Your task to perform on an android device: Go to notification settings Image 0: 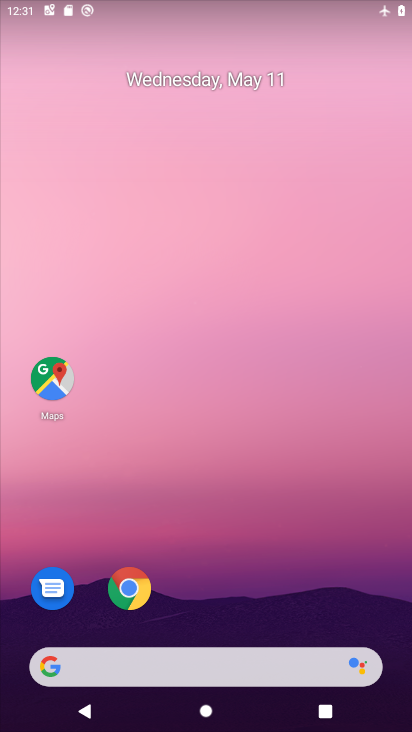
Step 0: drag from (212, 651) to (164, 264)
Your task to perform on an android device: Go to notification settings Image 1: 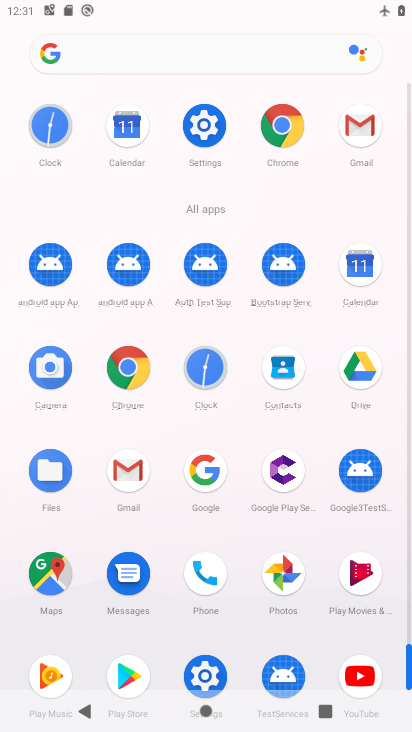
Step 1: click (186, 129)
Your task to perform on an android device: Go to notification settings Image 2: 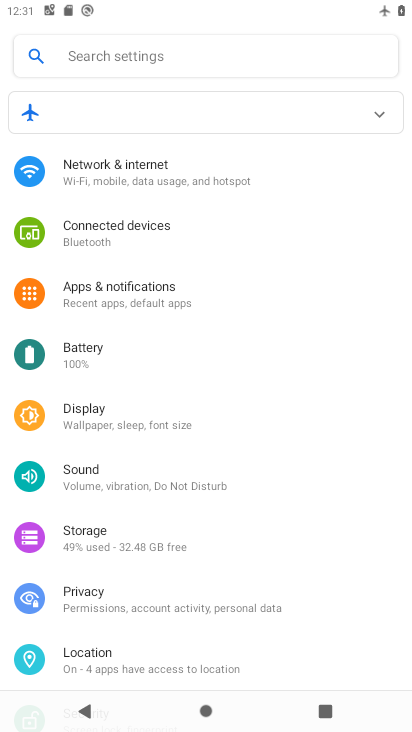
Step 2: click (110, 284)
Your task to perform on an android device: Go to notification settings Image 3: 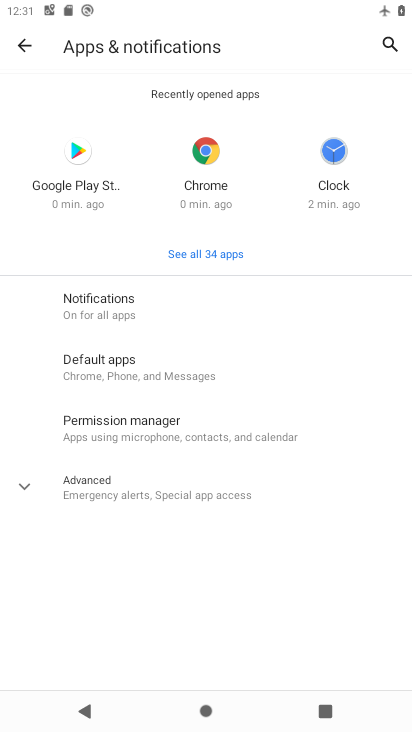
Step 3: click (86, 490)
Your task to perform on an android device: Go to notification settings Image 4: 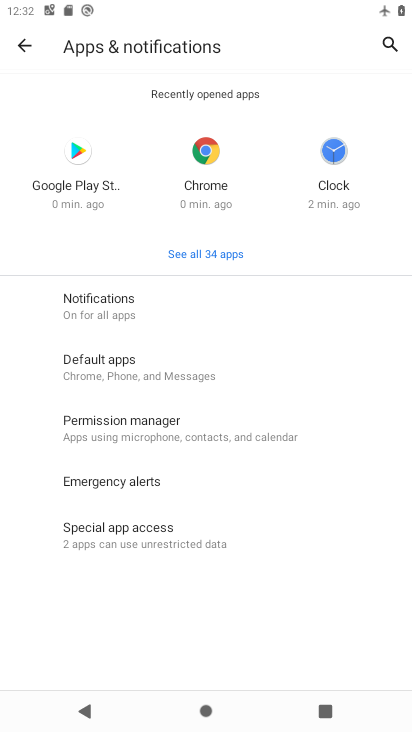
Step 4: task complete